Your task to perform on an android device: Search for Mexican restaurants on Maps Image 0: 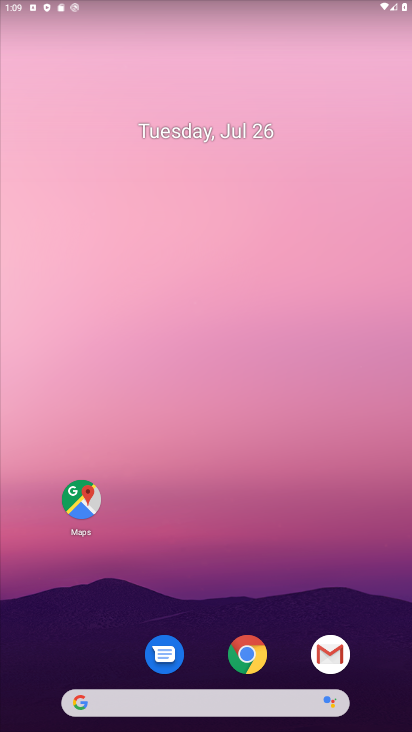
Step 0: click (75, 496)
Your task to perform on an android device: Search for Mexican restaurants on Maps Image 1: 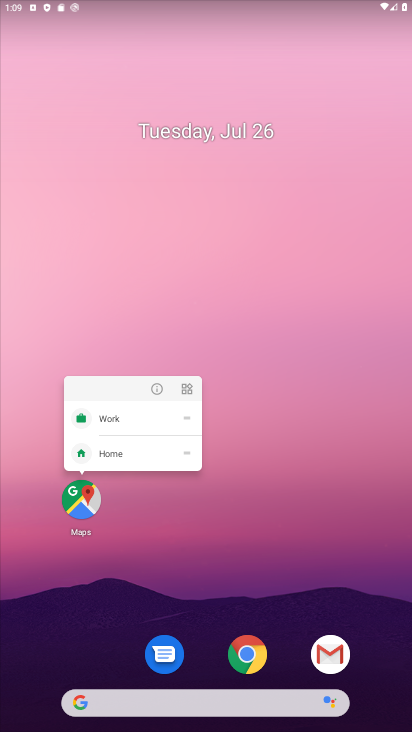
Step 1: click (87, 512)
Your task to perform on an android device: Search for Mexican restaurants on Maps Image 2: 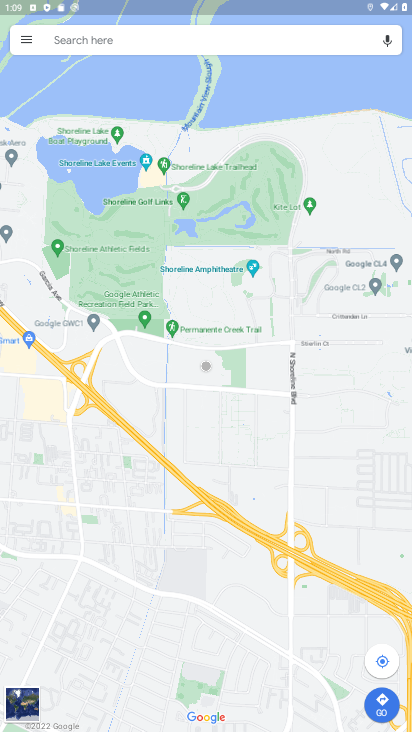
Step 2: click (118, 35)
Your task to perform on an android device: Search for Mexican restaurants on Maps Image 3: 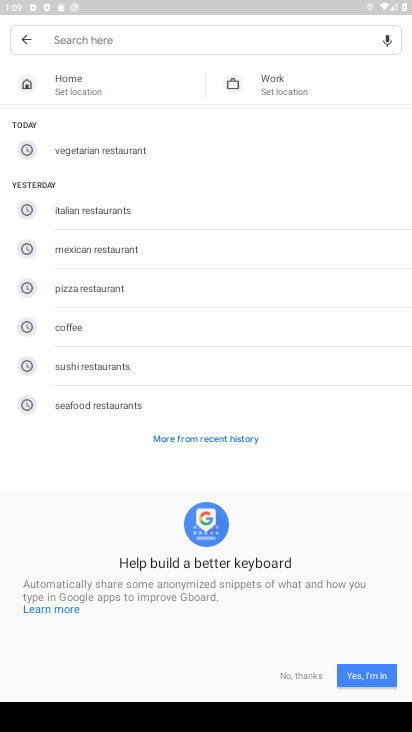
Step 3: click (282, 681)
Your task to perform on an android device: Search for Mexican restaurants on Maps Image 4: 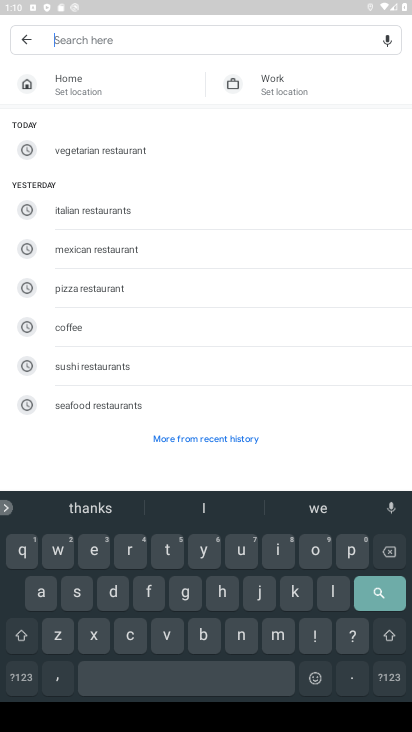
Step 4: click (93, 248)
Your task to perform on an android device: Search for Mexican restaurants on Maps Image 5: 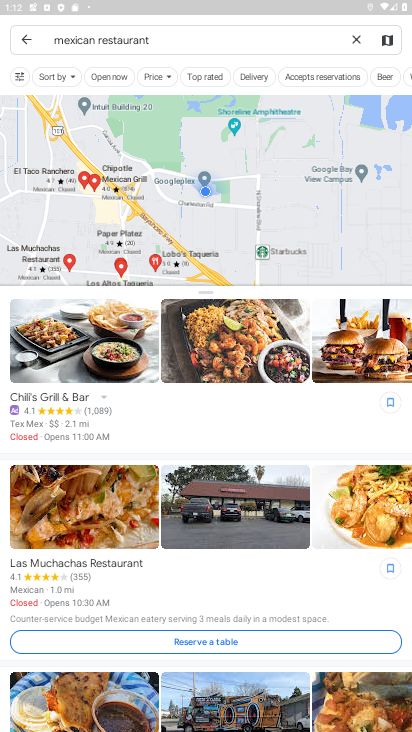
Step 5: task complete